Your task to perform on an android device: turn on the 24-hour format for clock Image 0: 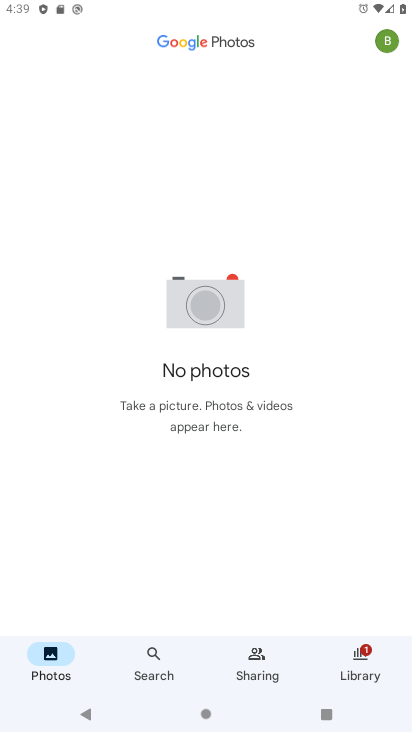
Step 0: press home button
Your task to perform on an android device: turn on the 24-hour format for clock Image 1: 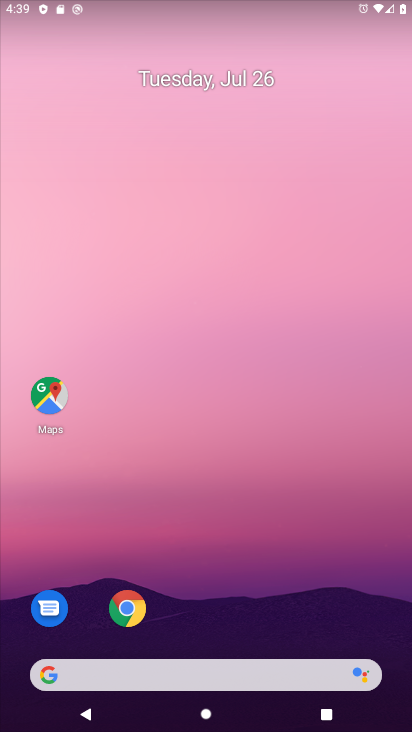
Step 1: drag from (391, 717) to (343, 93)
Your task to perform on an android device: turn on the 24-hour format for clock Image 2: 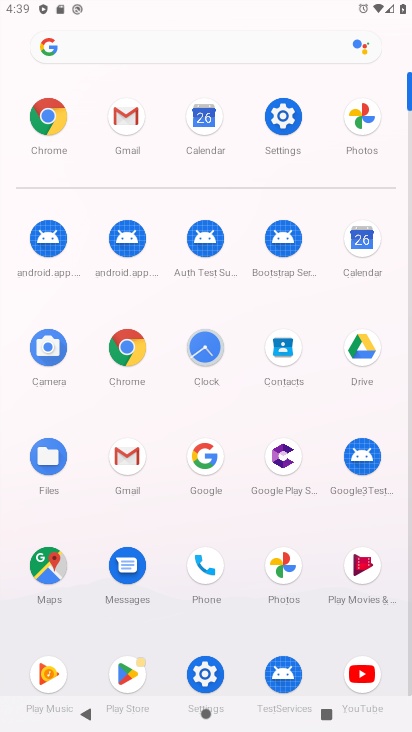
Step 2: click (195, 347)
Your task to perform on an android device: turn on the 24-hour format for clock Image 3: 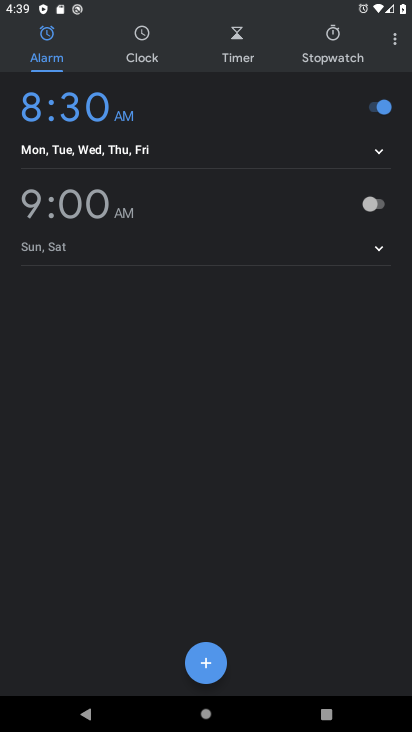
Step 3: click (398, 39)
Your task to perform on an android device: turn on the 24-hour format for clock Image 4: 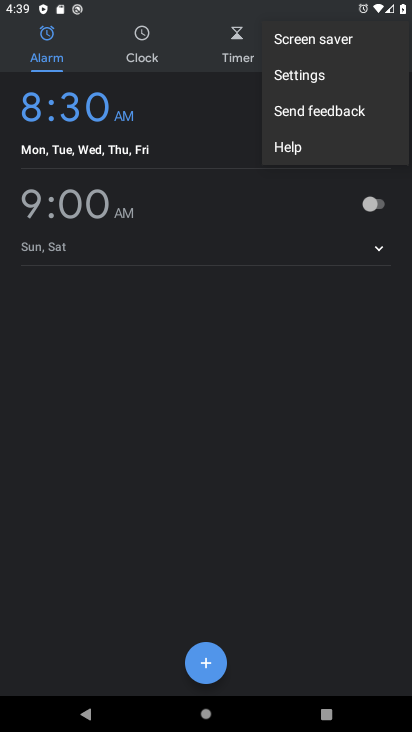
Step 4: click (313, 74)
Your task to perform on an android device: turn on the 24-hour format for clock Image 5: 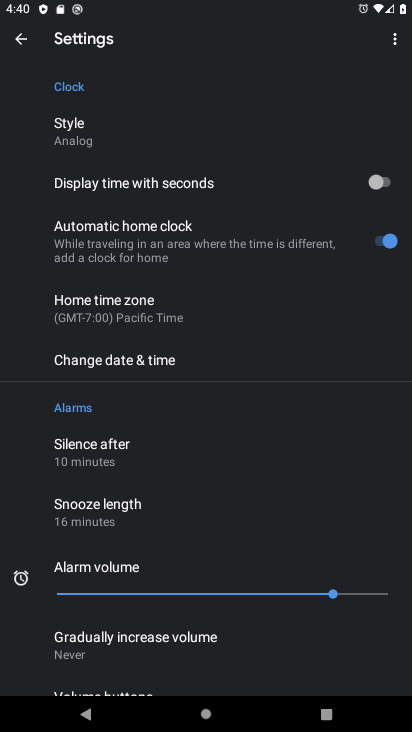
Step 5: click (81, 512)
Your task to perform on an android device: turn on the 24-hour format for clock Image 6: 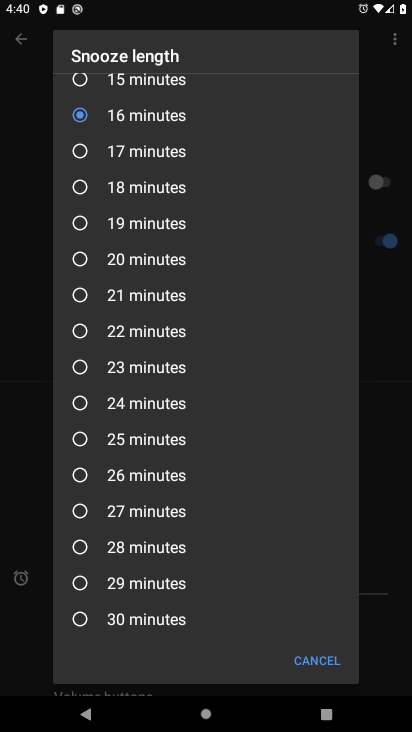
Step 6: click (328, 664)
Your task to perform on an android device: turn on the 24-hour format for clock Image 7: 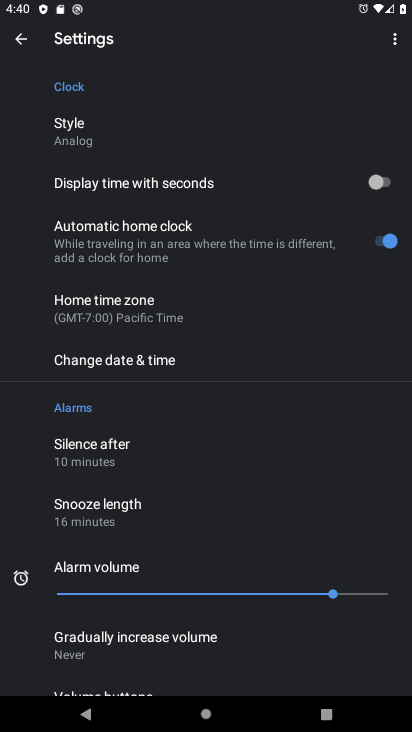
Step 7: click (121, 356)
Your task to perform on an android device: turn on the 24-hour format for clock Image 8: 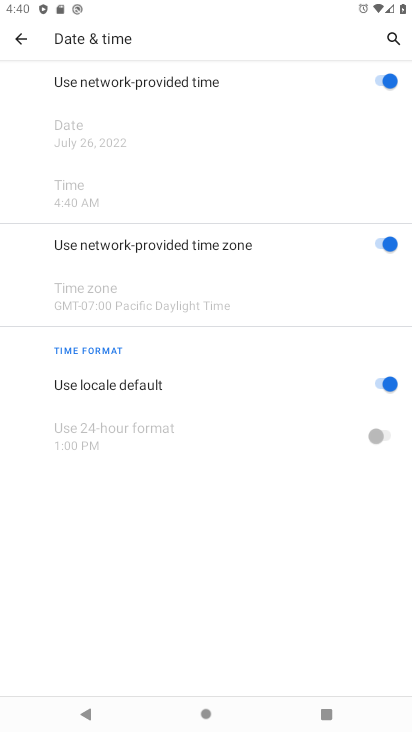
Step 8: click (389, 376)
Your task to perform on an android device: turn on the 24-hour format for clock Image 9: 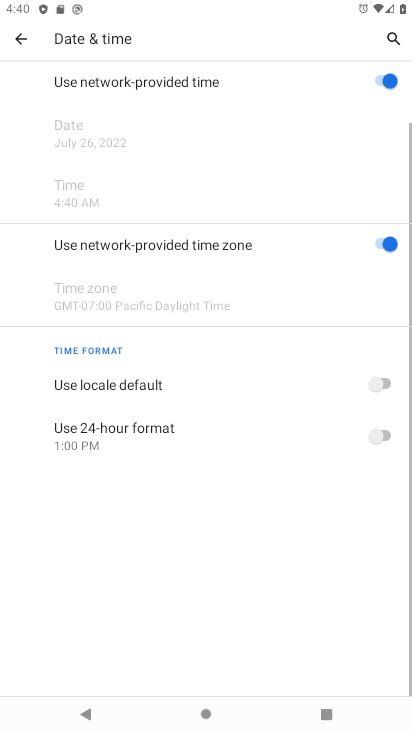
Step 9: click (377, 436)
Your task to perform on an android device: turn on the 24-hour format for clock Image 10: 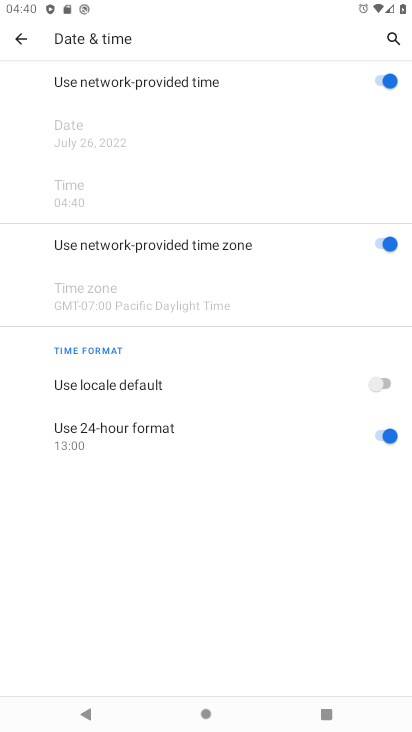
Step 10: task complete